Your task to perform on an android device: What is the news today? Image 0: 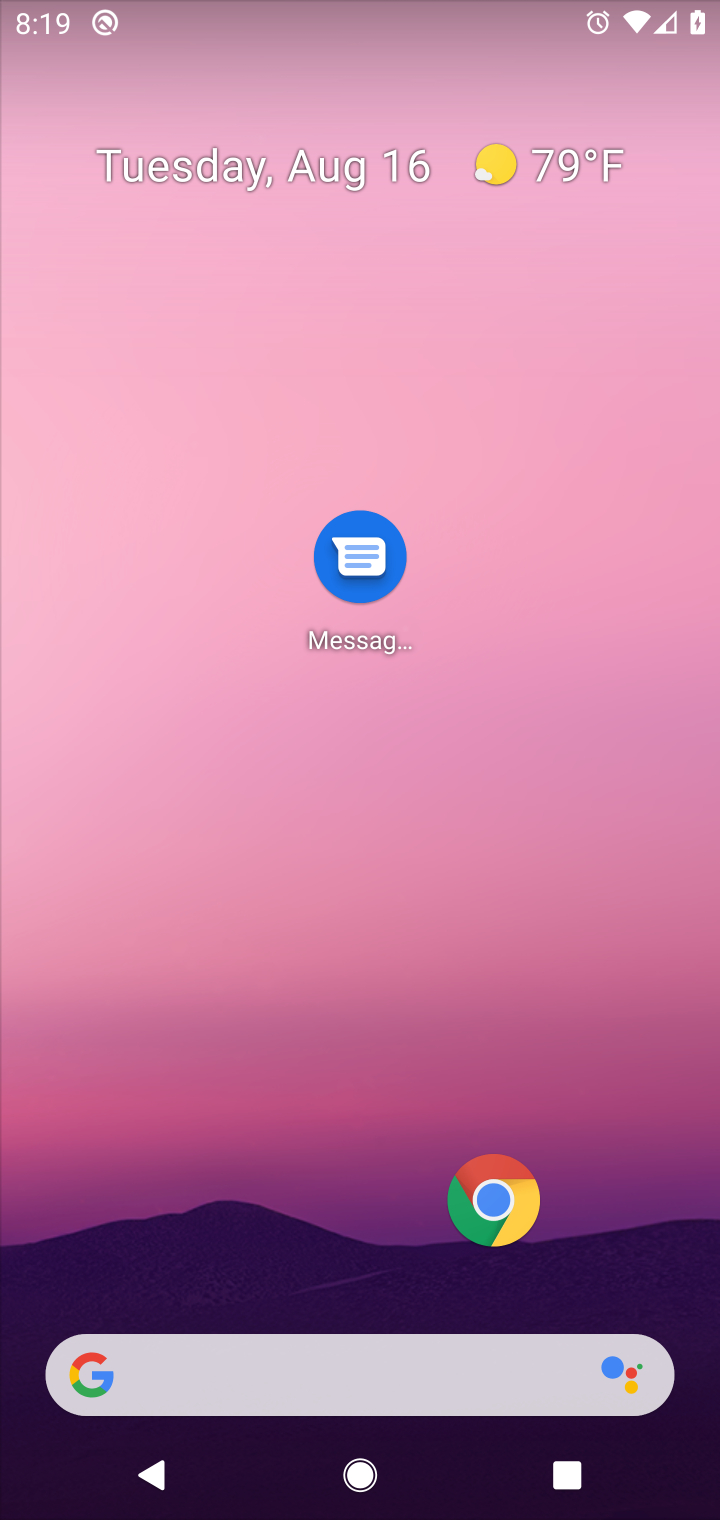
Step 0: click (218, 1377)
Your task to perform on an android device: What is the news today? Image 1: 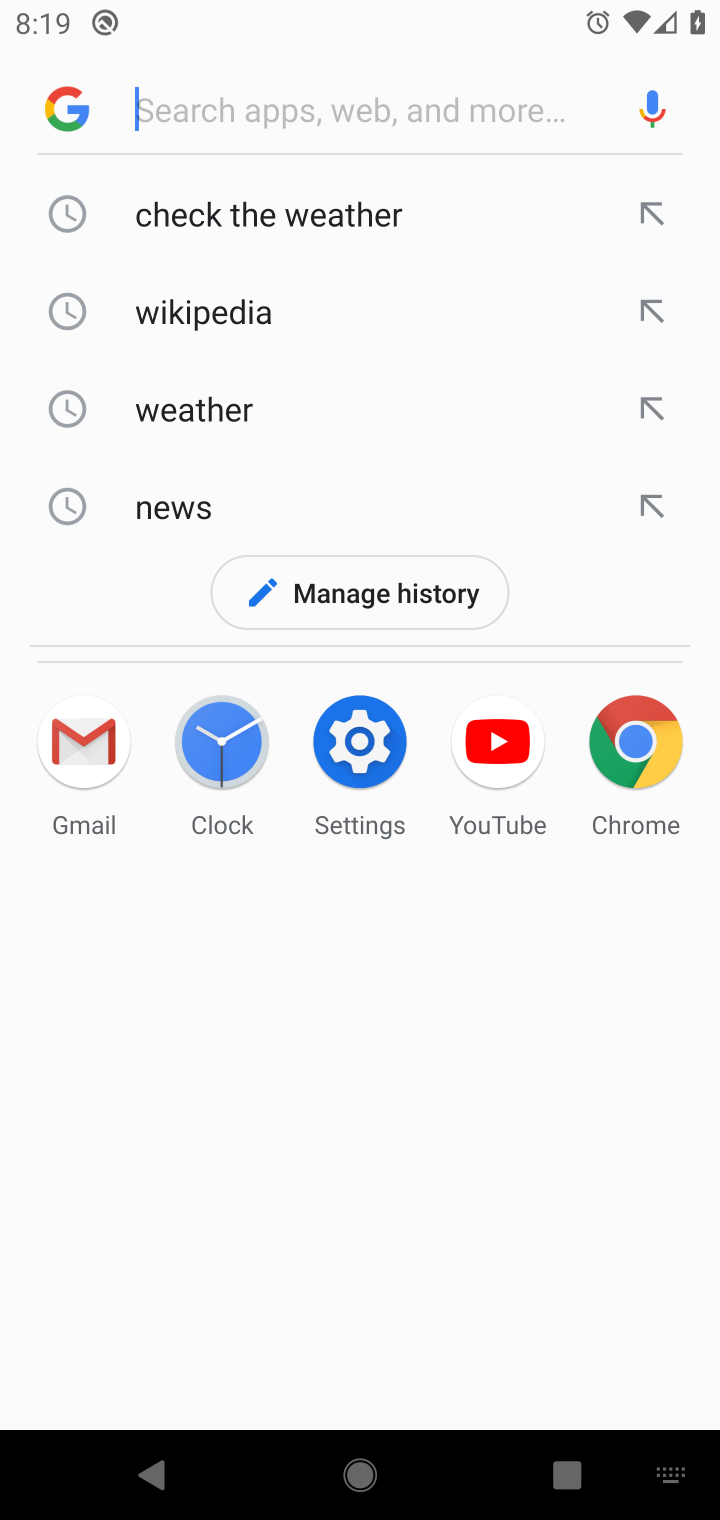
Step 1: type "What is the news today?"
Your task to perform on an android device: What is the news today? Image 2: 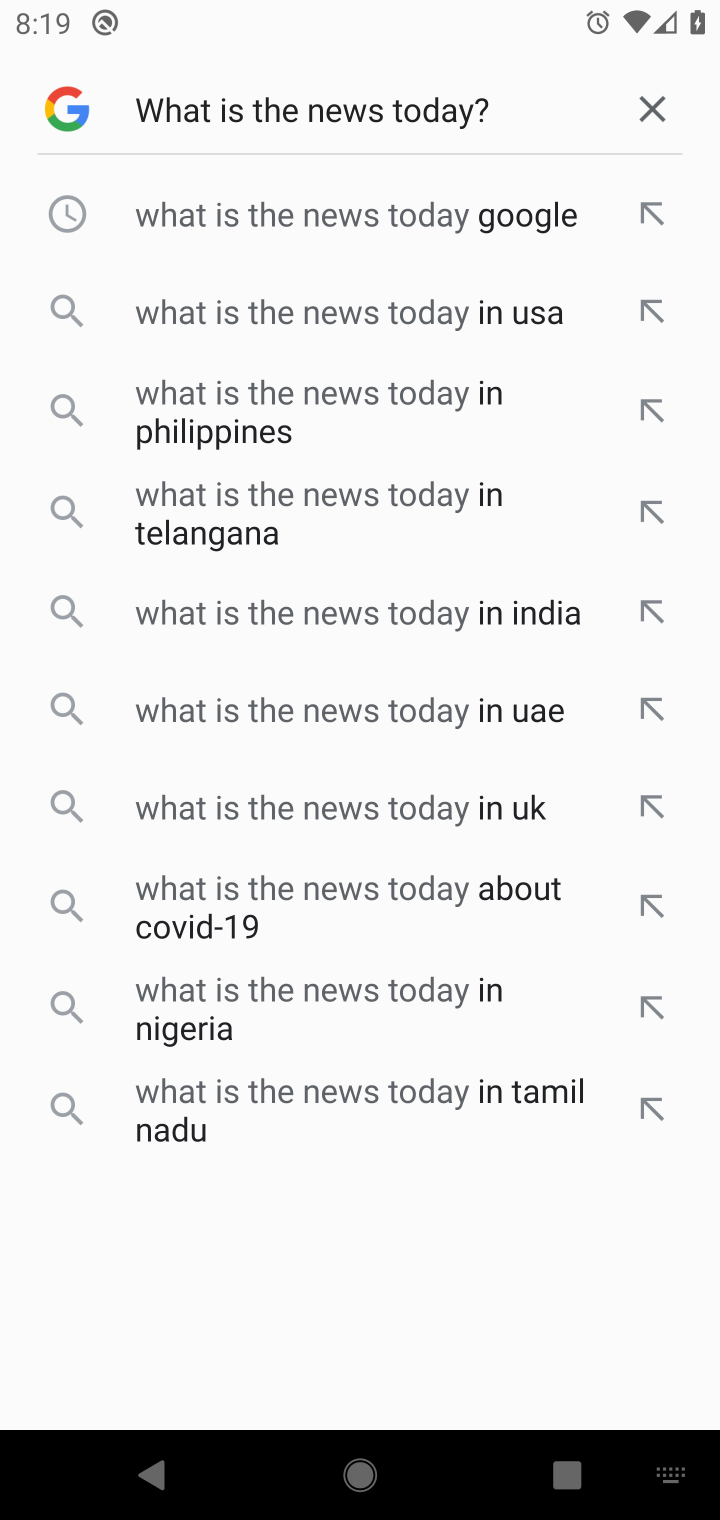
Step 2: type ""
Your task to perform on an android device: What is the news today? Image 3: 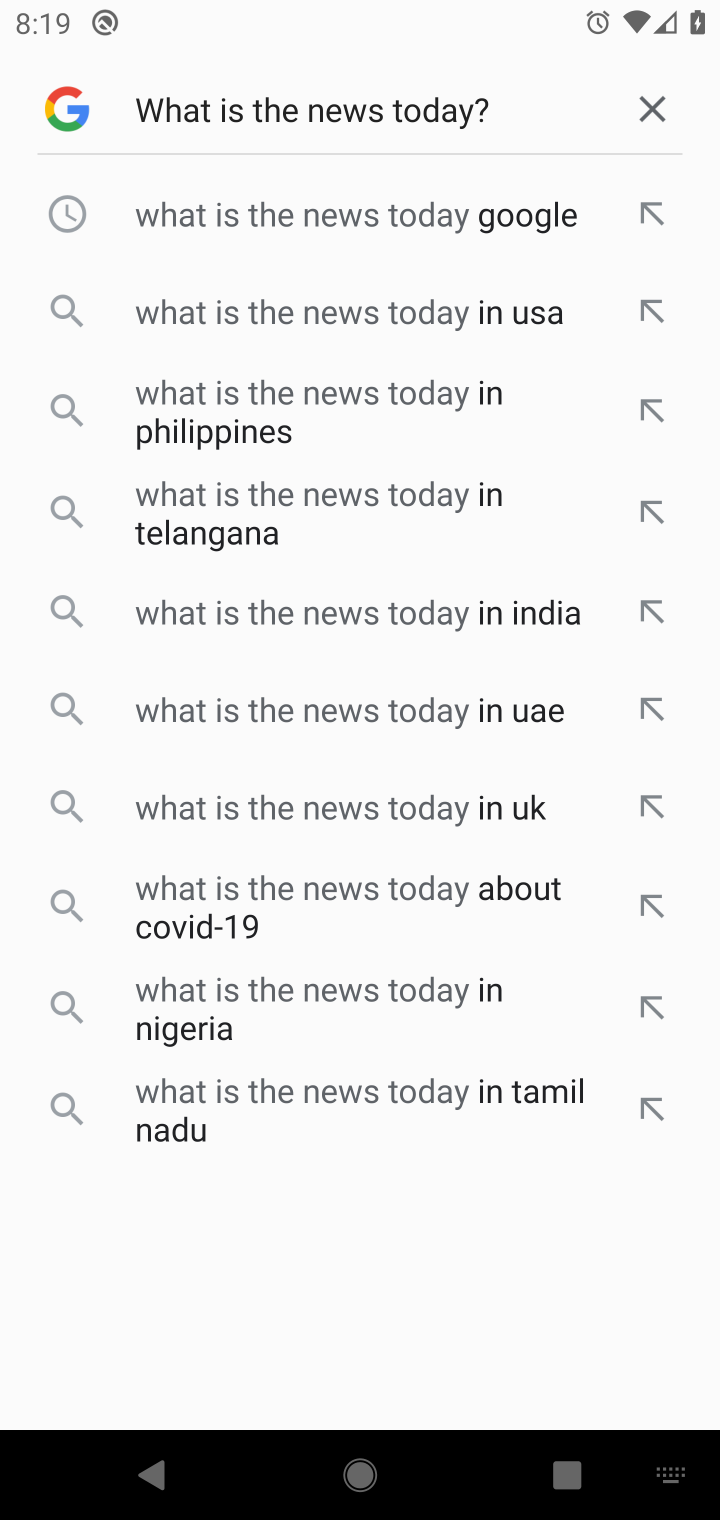
Step 3: type ""
Your task to perform on an android device: What is the news today? Image 4: 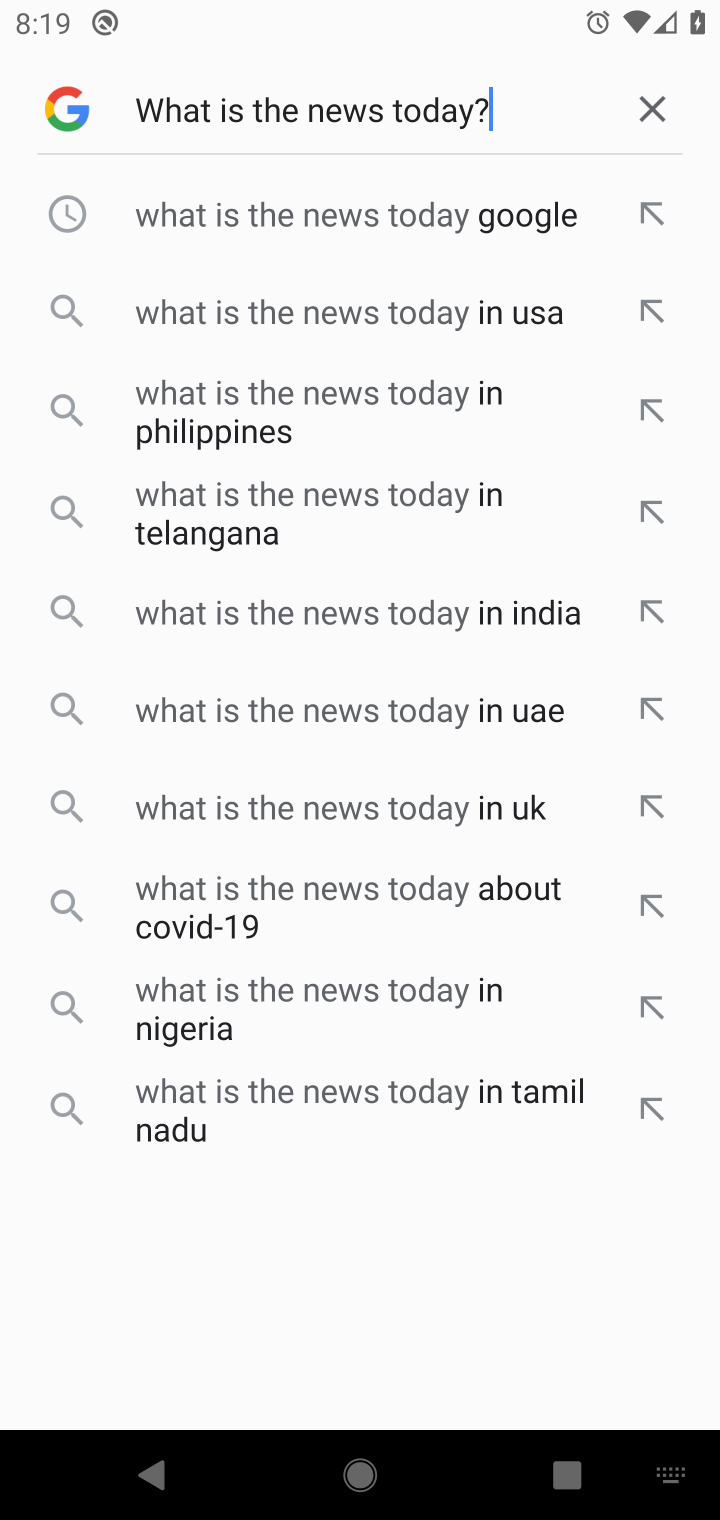
Step 4: task complete